Your task to perform on an android device: find snoozed emails in the gmail app Image 0: 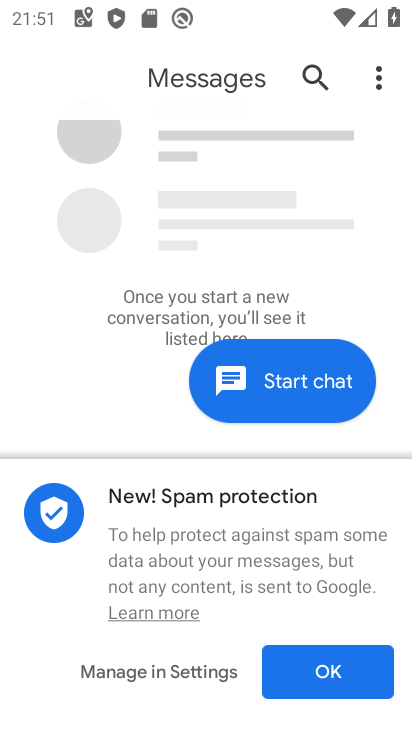
Step 0: press home button
Your task to perform on an android device: find snoozed emails in the gmail app Image 1: 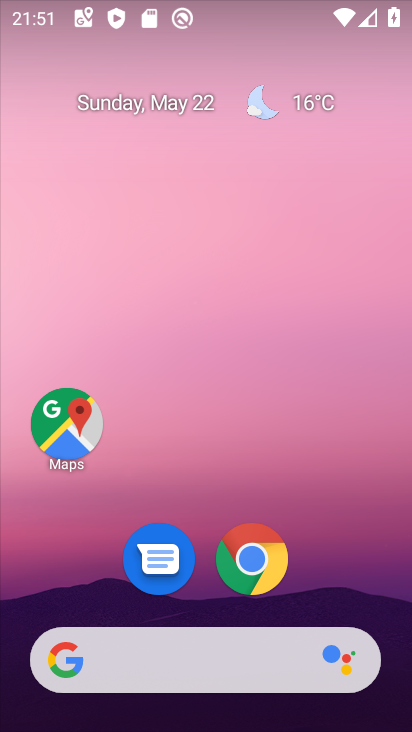
Step 1: drag from (288, 690) to (178, 283)
Your task to perform on an android device: find snoozed emails in the gmail app Image 2: 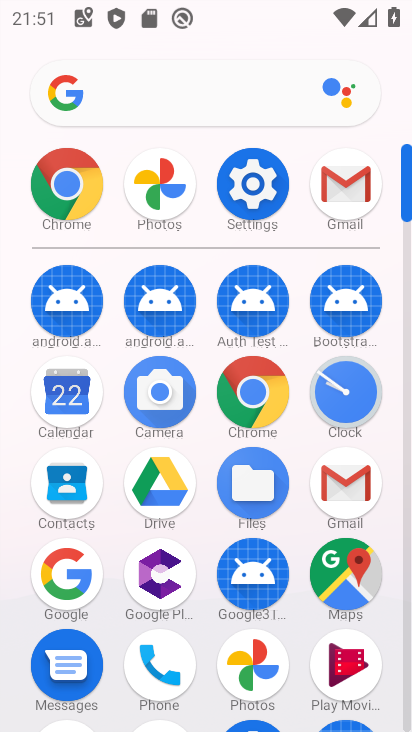
Step 2: click (319, 502)
Your task to perform on an android device: find snoozed emails in the gmail app Image 3: 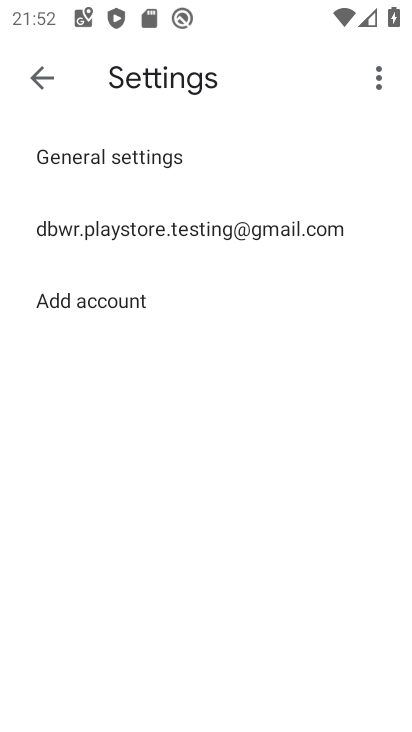
Step 3: click (120, 237)
Your task to perform on an android device: find snoozed emails in the gmail app Image 4: 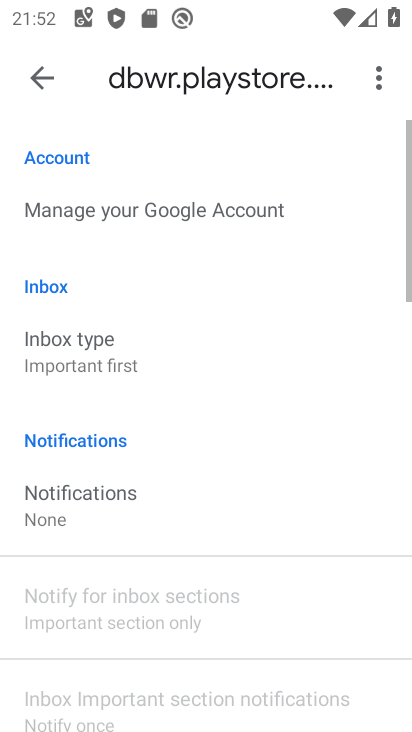
Step 4: click (50, 96)
Your task to perform on an android device: find snoozed emails in the gmail app Image 5: 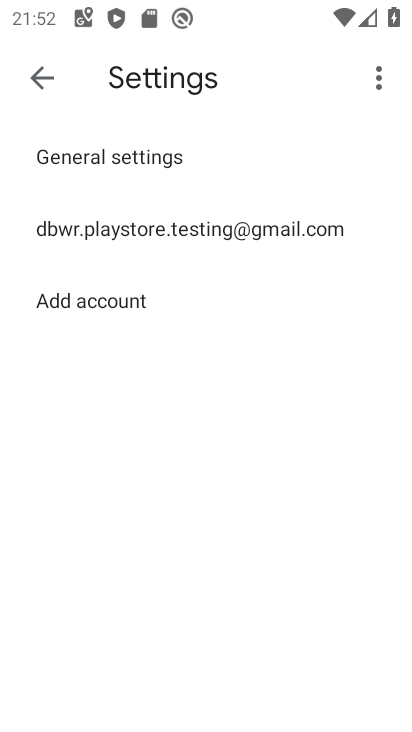
Step 5: click (50, 96)
Your task to perform on an android device: find snoozed emails in the gmail app Image 6: 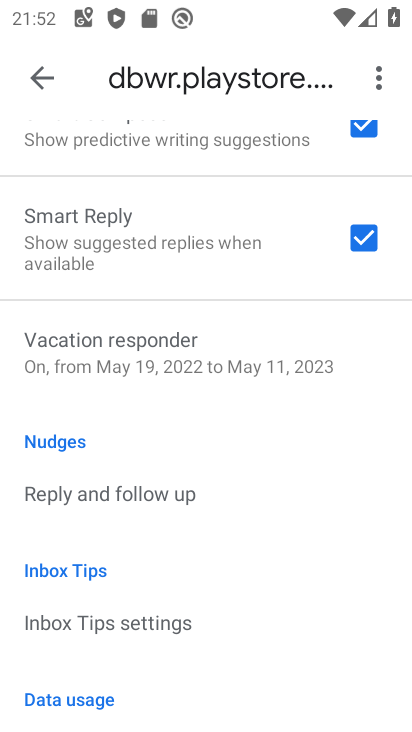
Step 6: click (38, 94)
Your task to perform on an android device: find snoozed emails in the gmail app Image 7: 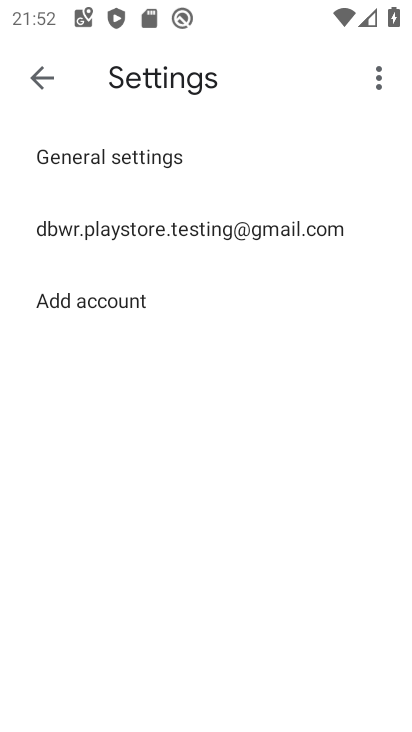
Step 7: click (41, 87)
Your task to perform on an android device: find snoozed emails in the gmail app Image 8: 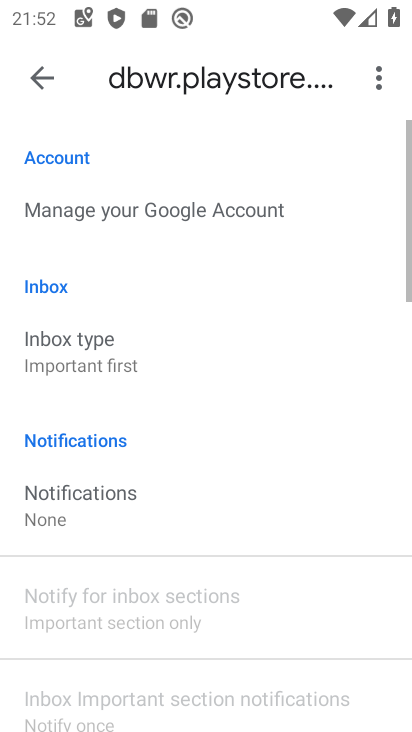
Step 8: click (42, 87)
Your task to perform on an android device: find snoozed emails in the gmail app Image 9: 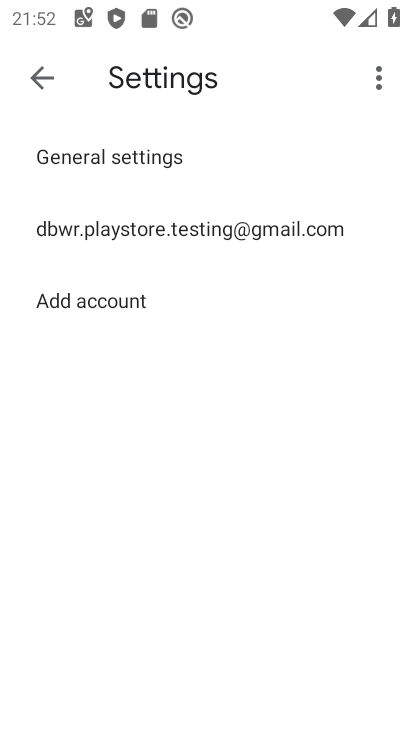
Step 9: click (48, 85)
Your task to perform on an android device: find snoozed emails in the gmail app Image 10: 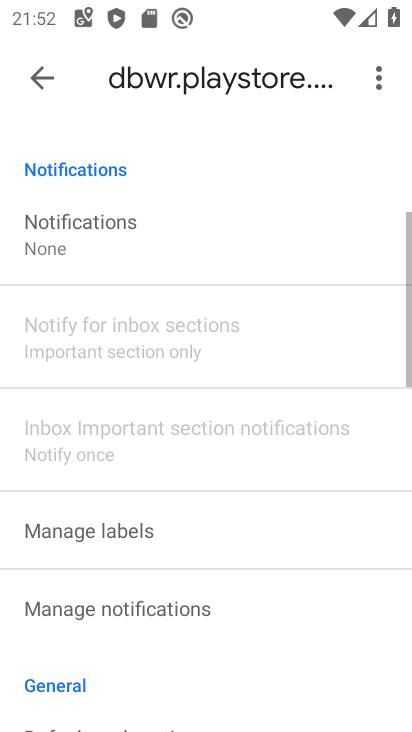
Step 10: click (46, 81)
Your task to perform on an android device: find snoozed emails in the gmail app Image 11: 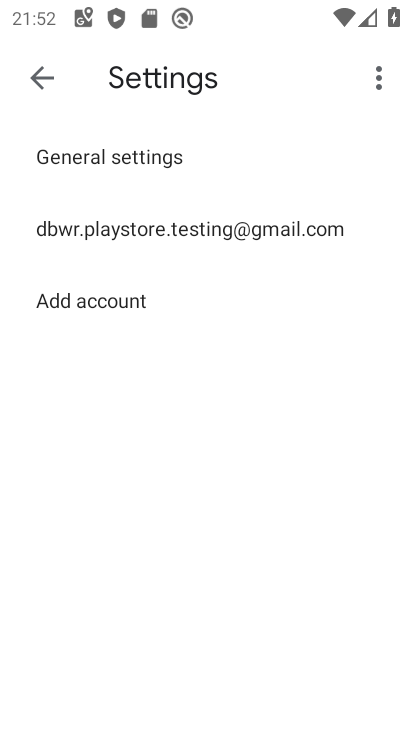
Step 11: click (43, 85)
Your task to perform on an android device: find snoozed emails in the gmail app Image 12: 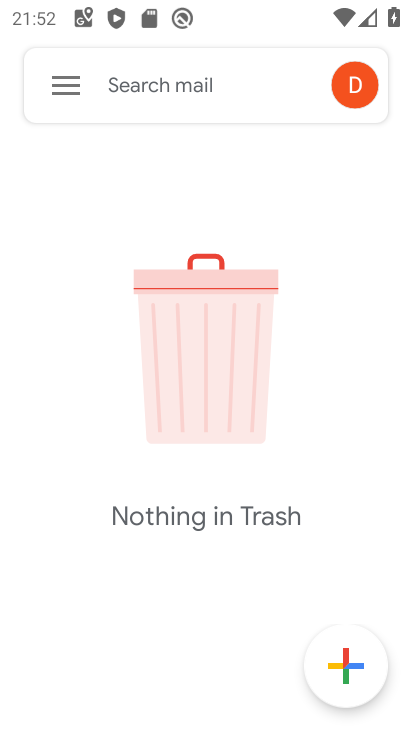
Step 12: click (60, 80)
Your task to perform on an android device: find snoozed emails in the gmail app Image 13: 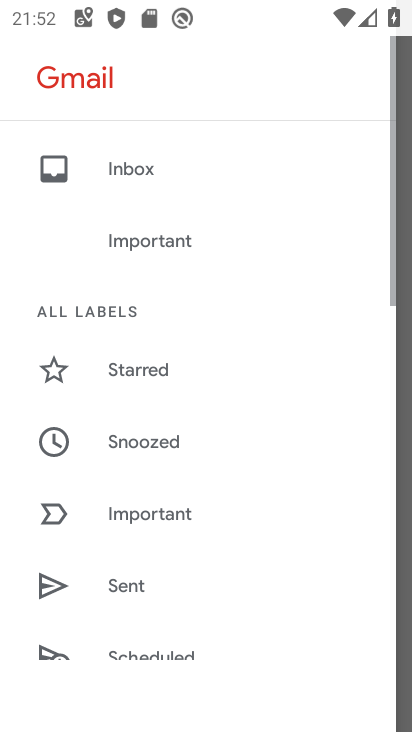
Step 13: drag from (162, 215) to (149, 152)
Your task to perform on an android device: find snoozed emails in the gmail app Image 14: 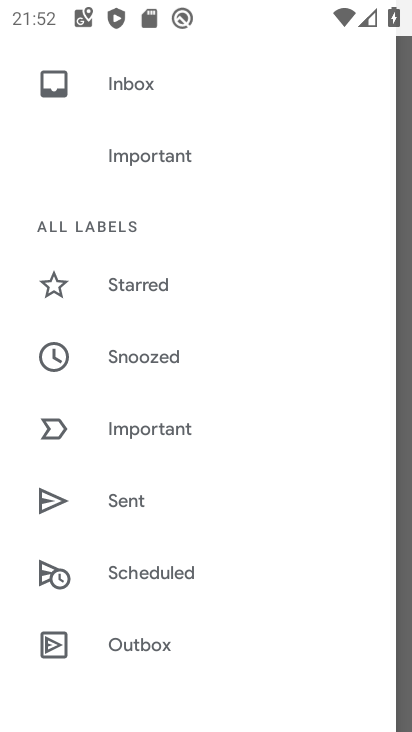
Step 14: click (144, 280)
Your task to perform on an android device: find snoozed emails in the gmail app Image 15: 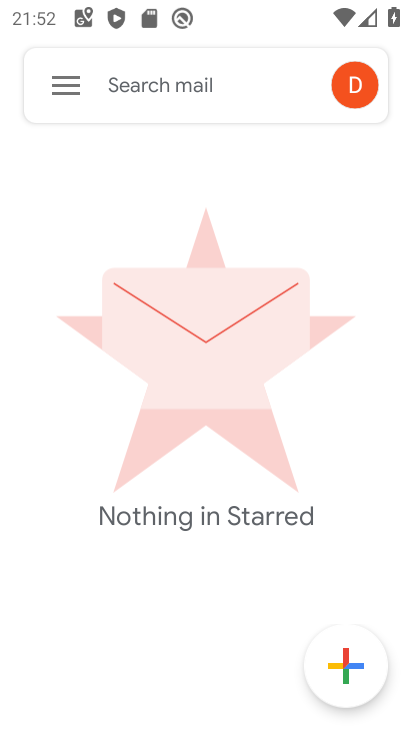
Step 15: task complete